Your task to perform on an android device: delete a single message in the gmail app Image 0: 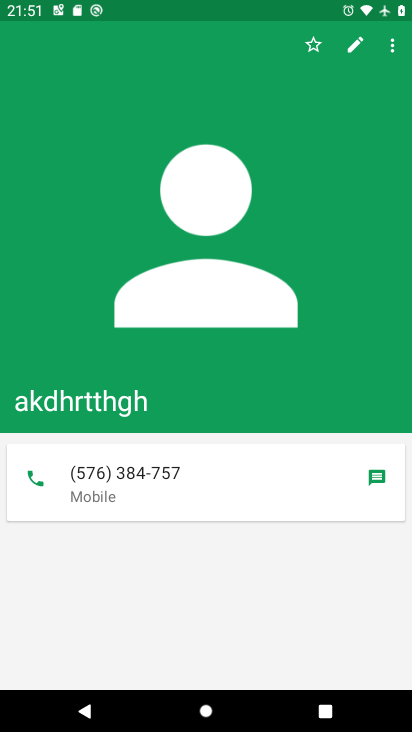
Step 0: press home button
Your task to perform on an android device: delete a single message in the gmail app Image 1: 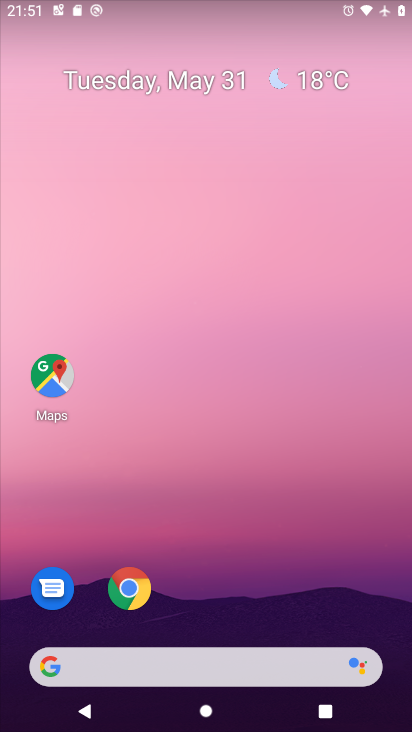
Step 1: drag from (140, 629) to (246, 249)
Your task to perform on an android device: delete a single message in the gmail app Image 2: 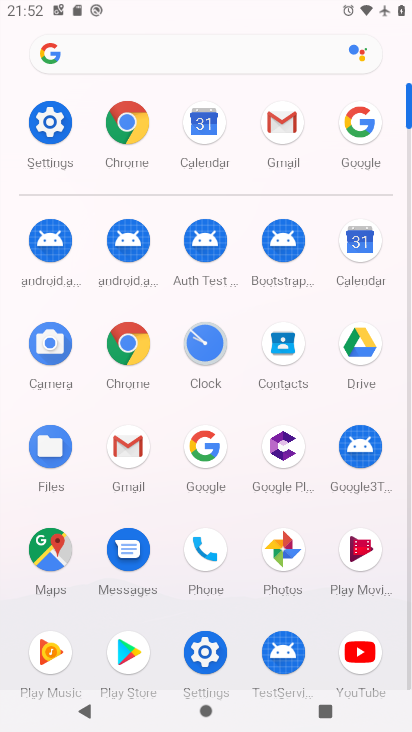
Step 2: click (286, 133)
Your task to perform on an android device: delete a single message in the gmail app Image 3: 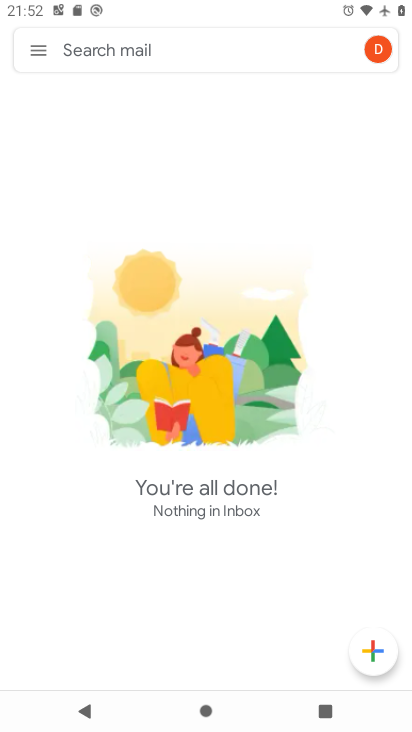
Step 3: task complete